Your task to perform on an android device: Go to wifi settings Image 0: 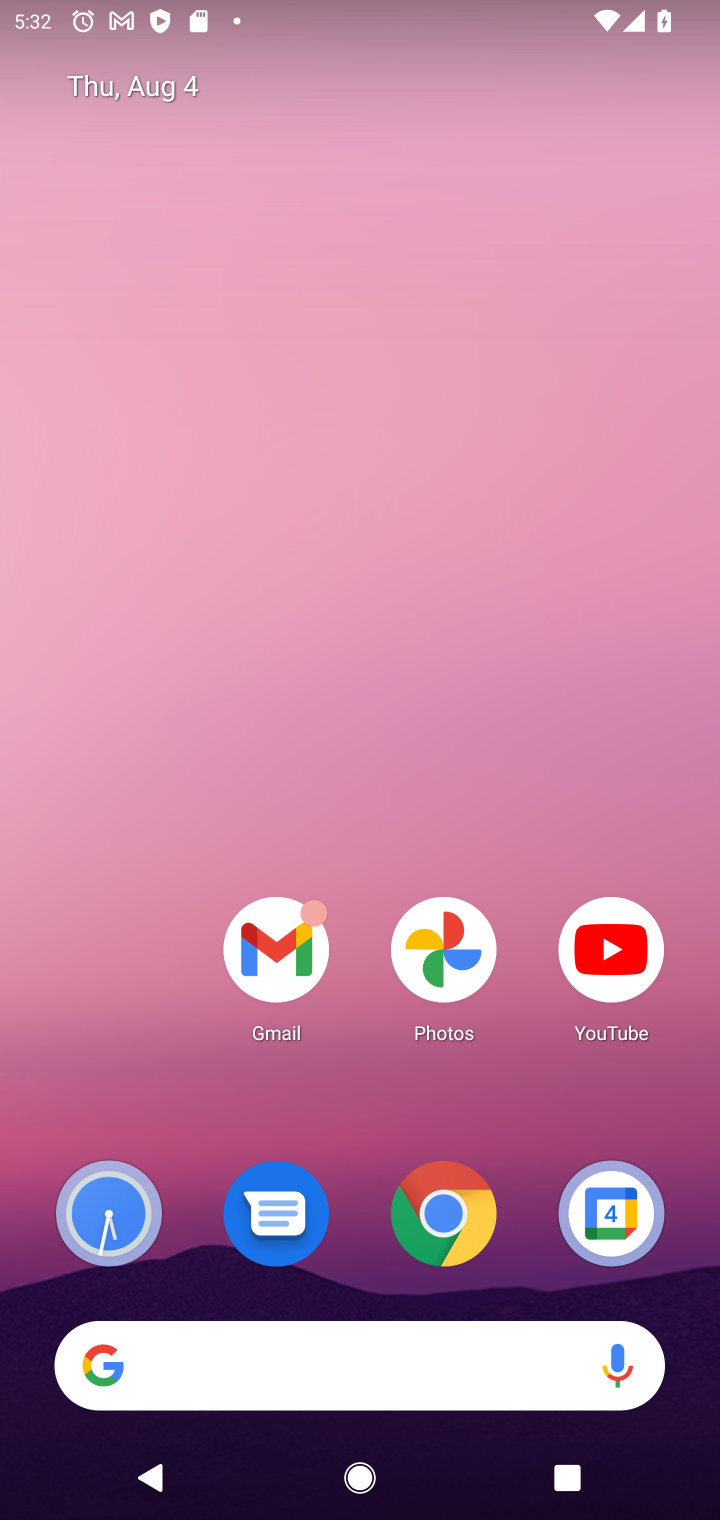
Step 0: drag from (128, 975) to (144, 7)
Your task to perform on an android device: Go to wifi settings Image 1: 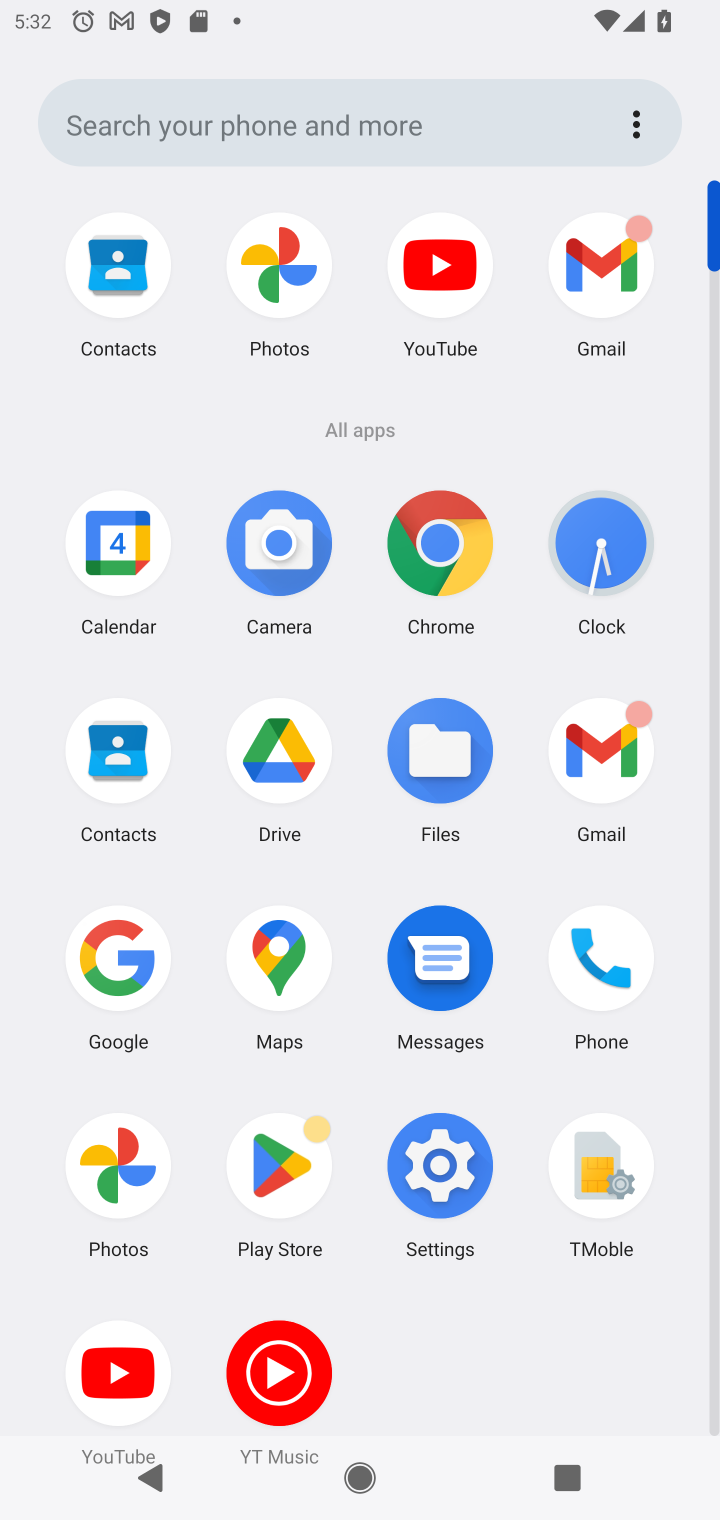
Step 1: click (439, 1186)
Your task to perform on an android device: Go to wifi settings Image 2: 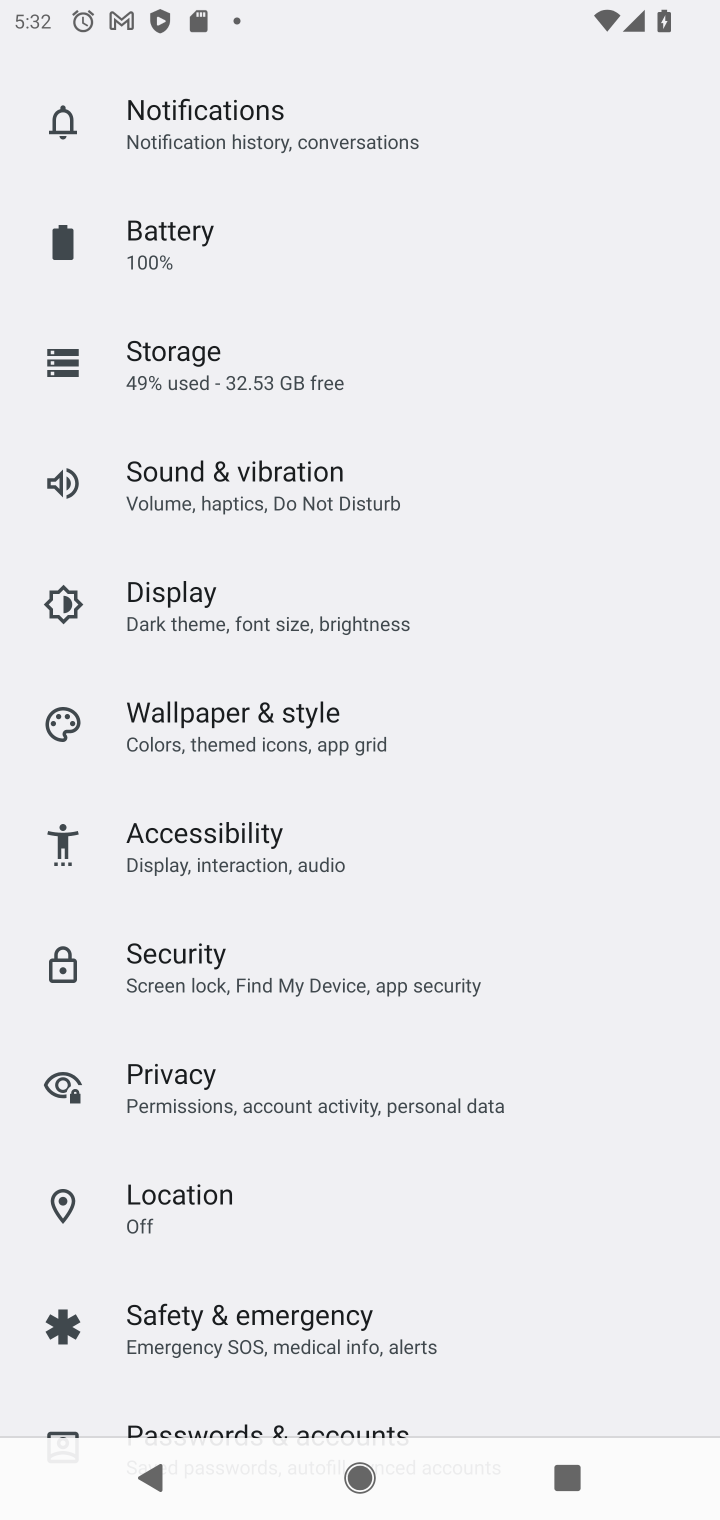
Step 2: drag from (490, 399) to (483, 960)
Your task to perform on an android device: Go to wifi settings Image 3: 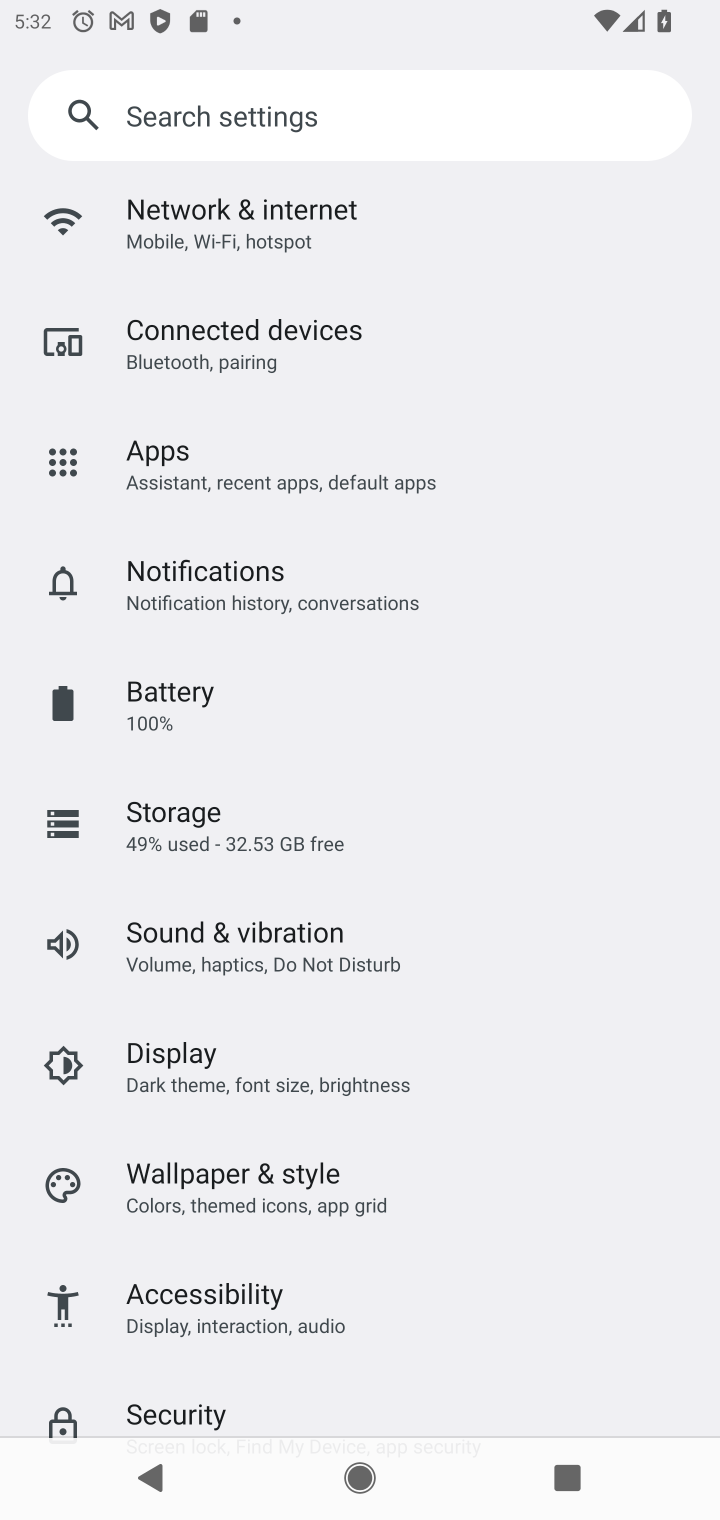
Step 3: click (195, 234)
Your task to perform on an android device: Go to wifi settings Image 4: 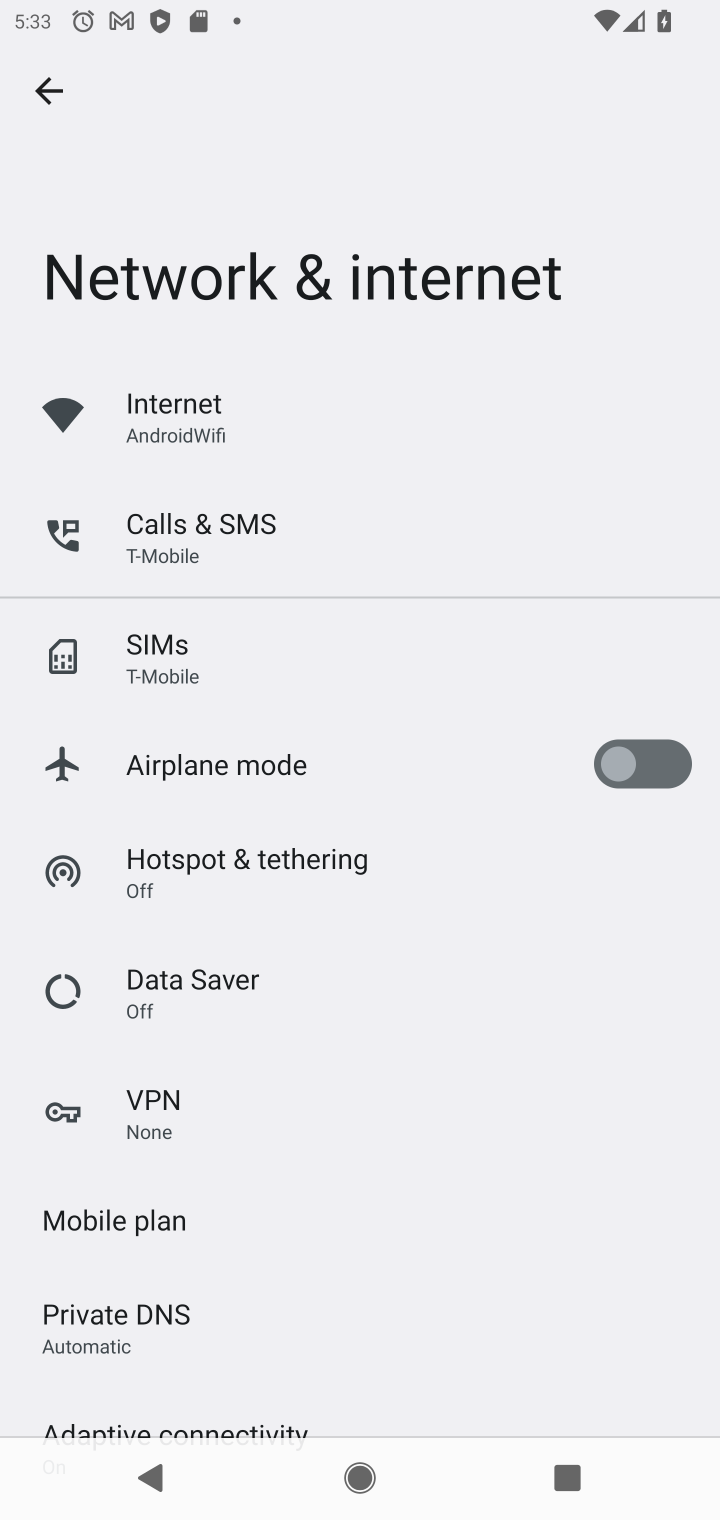
Step 4: click (171, 424)
Your task to perform on an android device: Go to wifi settings Image 5: 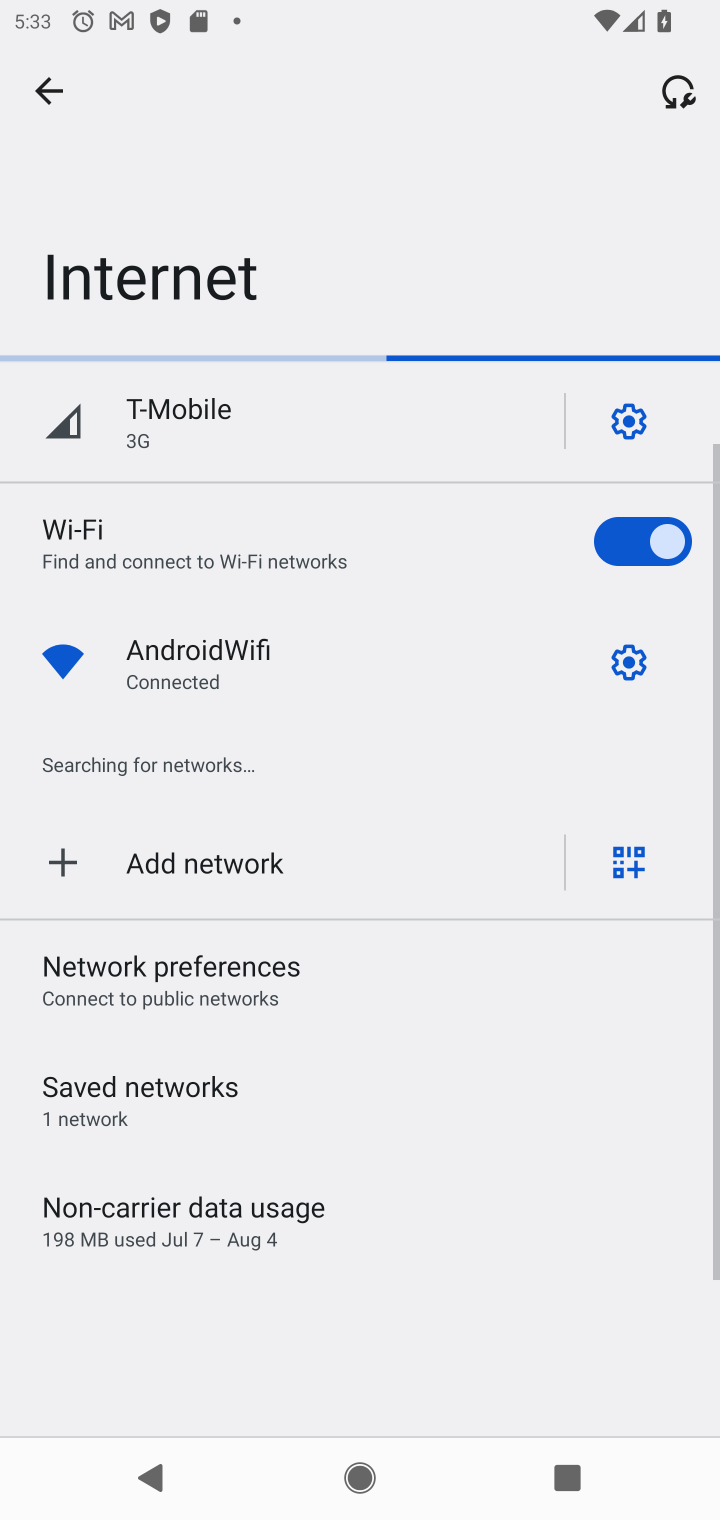
Step 5: task complete